Your task to perform on an android device: allow cookies in the chrome app Image 0: 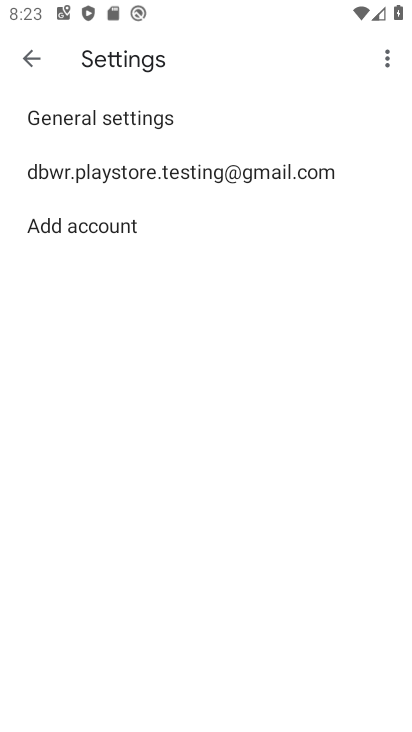
Step 0: press home button
Your task to perform on an android device: allow cookies in the chrome app Image 1: 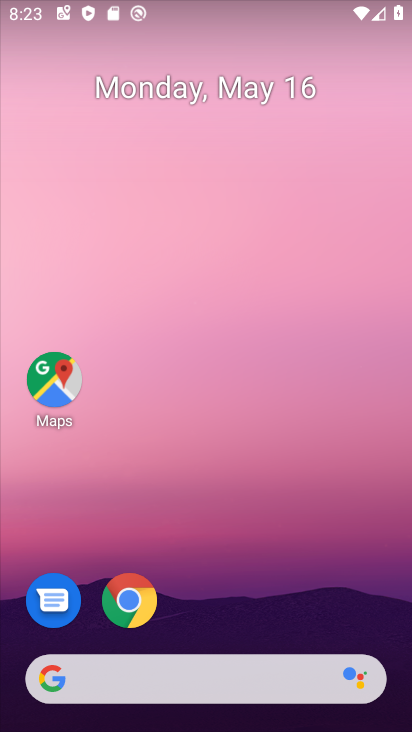
Step 1: drag from (295, 581) to (370, 151)
Your task to perform on an android device: allow cookies in the chrome app Image 2: 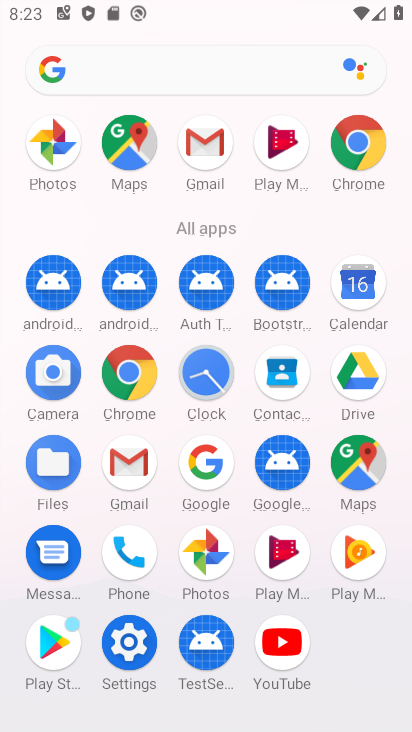
Step 2: click (370, 150)
Your task to perform on an android device: allow cookies in the chrome app Image 3: 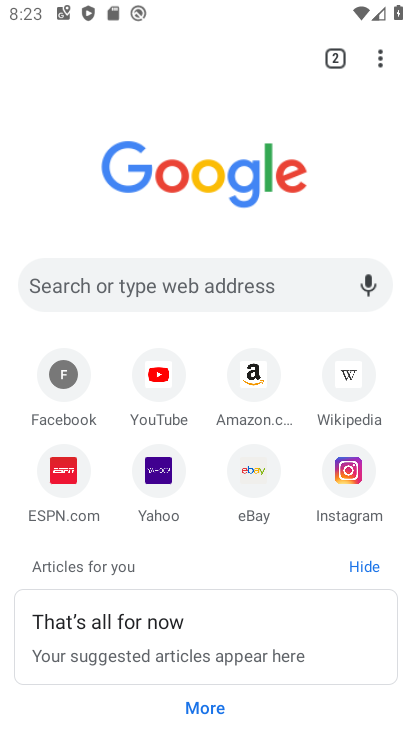
Step 3: drag from (376, 51) to (156, 480)
Your task to perform on an android device: allow cookies in the chrome app Image 4: 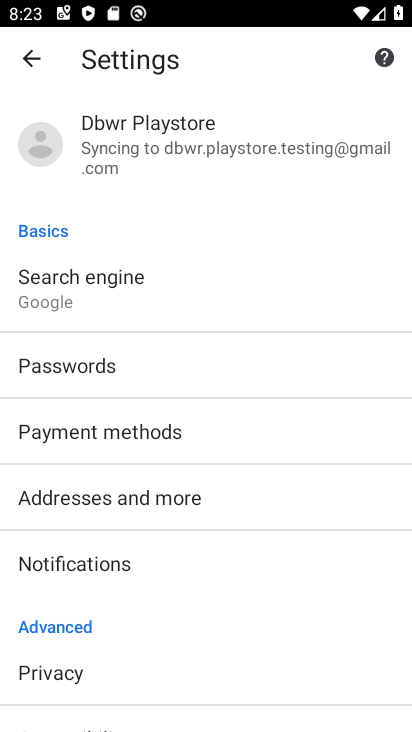
Step 4: drag from (164, 454) to (252, 125)
Your task to perform on an android device: allow cookies in the chrome app Image 5: 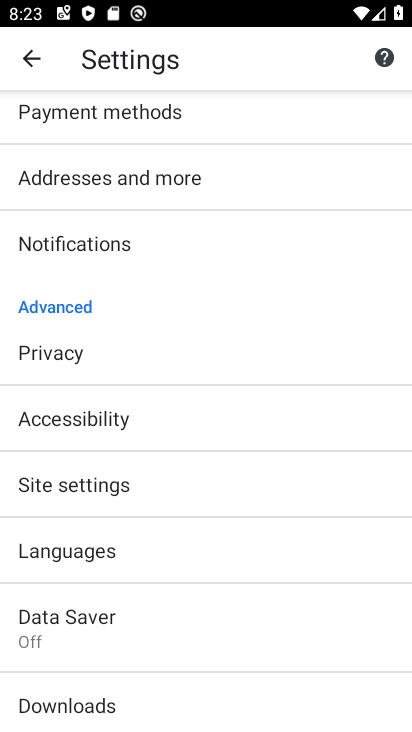
Step 5: click (151, 488)
Your task to perform on an android device: allow cookies in the chrome app Image 6: 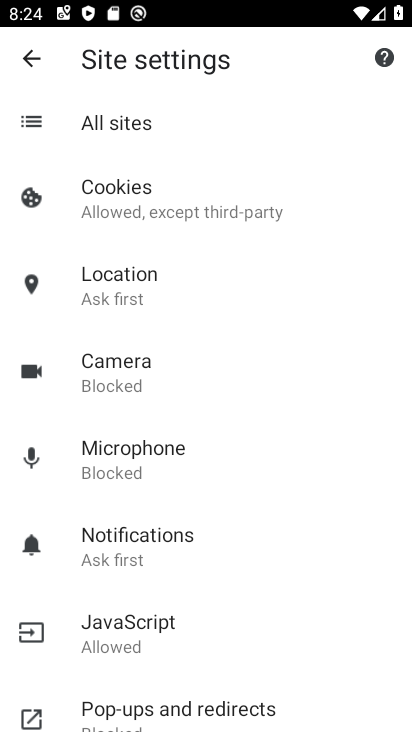
Step 6: click (159, 200)
Your task to perform on an android device: allow cookies in the chrome app Image 7: 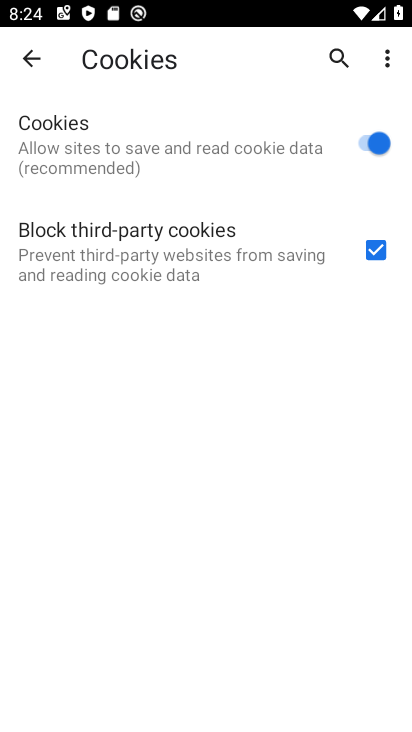
Step 7: task complete